Your task to perform on an android device: turn off location history Image 0: 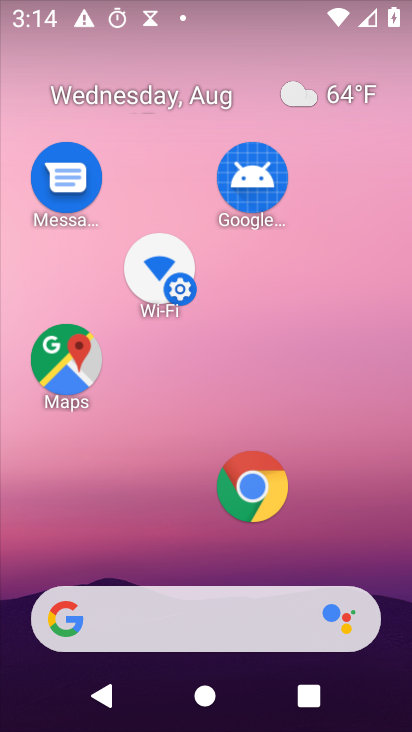
Step 0: press home button
Your task to perform on an android device: turn off location history Image 1: 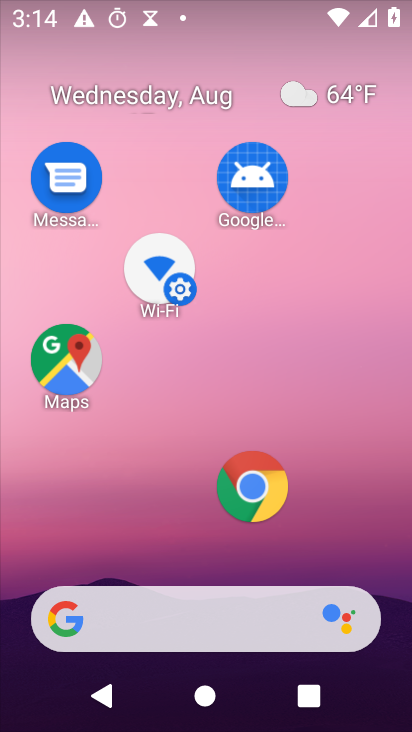
Step 1: drag from (321, 493) to (338, 44)
Your task to perform on an android device: turn off location history Image 2: 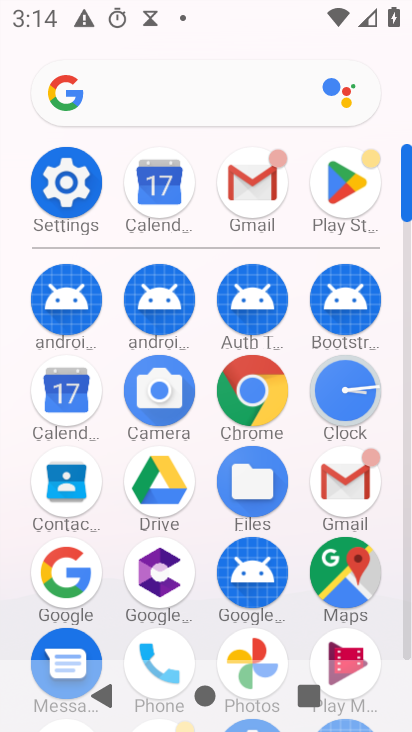
Step 2: click (71, 172)
Your task to perform on an android device: turn off location history Image 3: 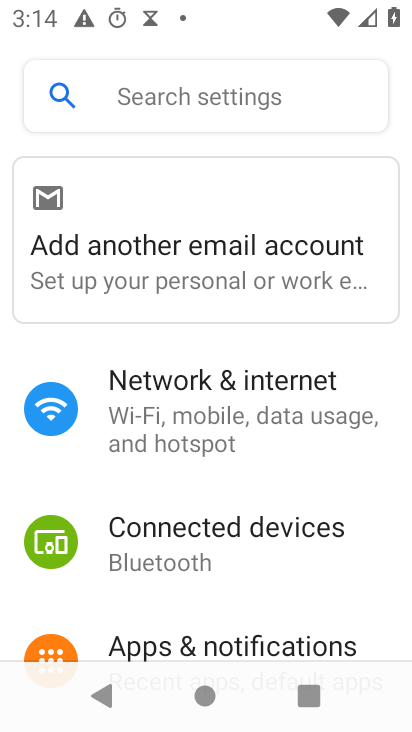
Step 3: drag from (347, 585) to (325, 75)
Your task to perform on an android device: turn off location history Image 4: 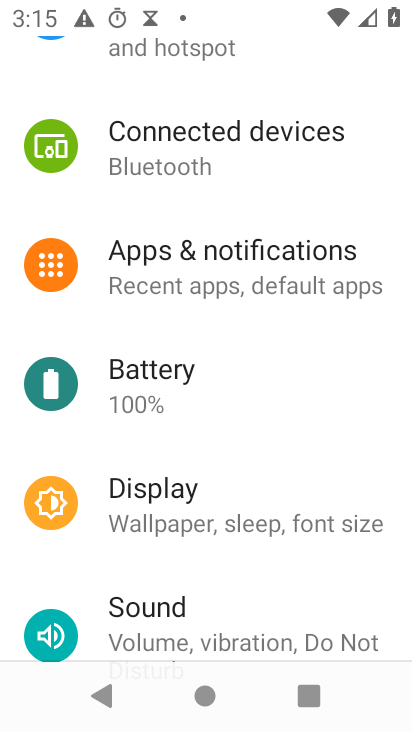
Step 4: drag from (389, 595) to (371, 216)
Your task to perform on an android device: turn off location history Image 5: 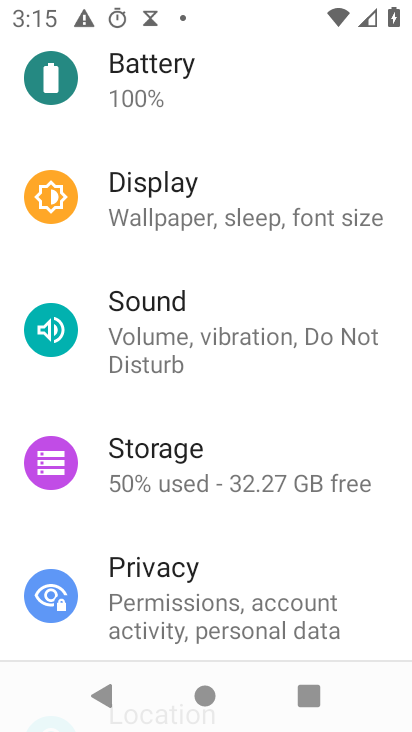
Step 5: drag from (403, 580) to (402, 178)
Your task to perform on an android device: turn off location history Image 6: 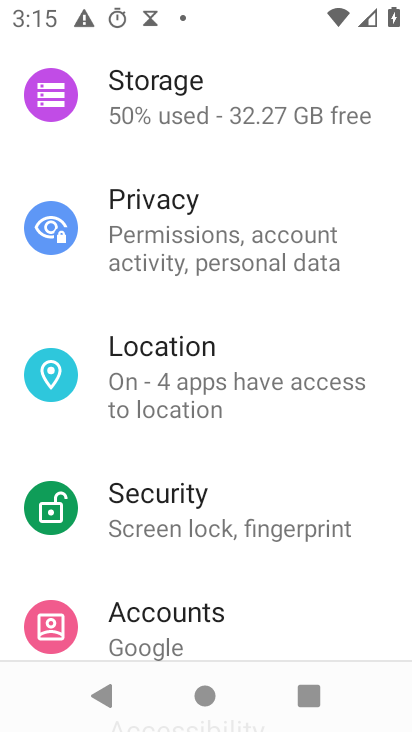
Step 6: click (204, 366)
Your task to perform on an android device: turn off location history Image 7: 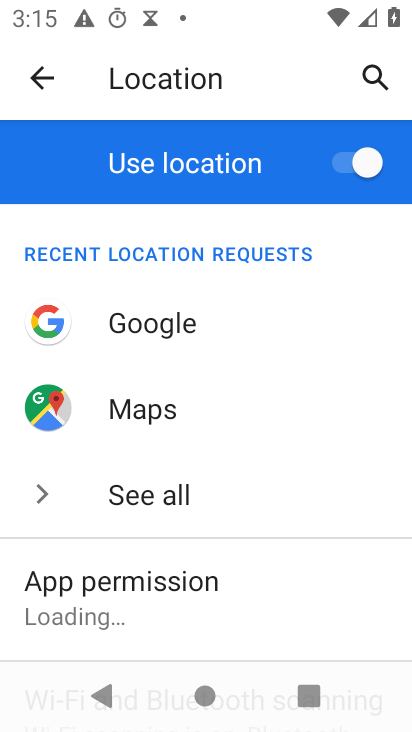
Step 7: drag from (312, 597) to (303, 345)
Your task to perform on an android device: turn off location history Image 8: 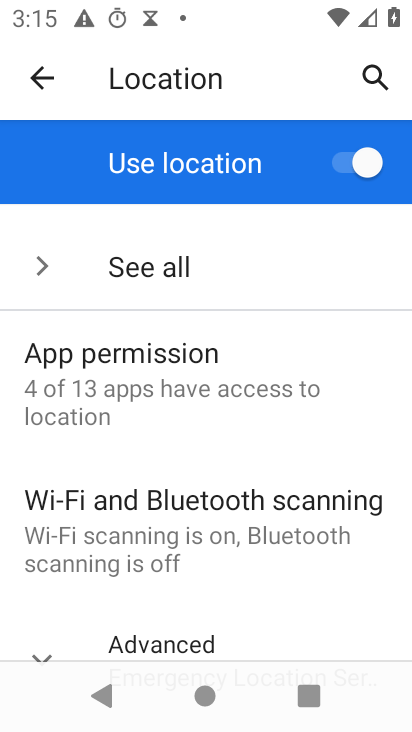
Step 8: click (158, 647)
Your task to perform on an android device: turn off location history Image 9: 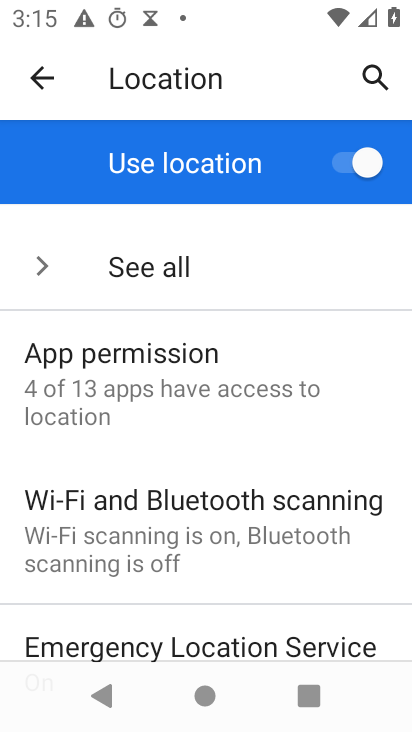
Step 9: drag from (392, 618) to (361, 197)
Your task to perform on an android device: turn off location history Image 10: 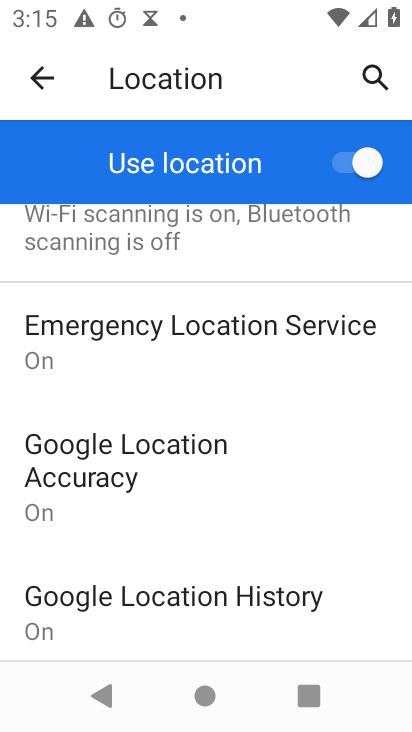
Step 10: click (208, 617)
Your task to perform on an android device: turn off location history Image 11: 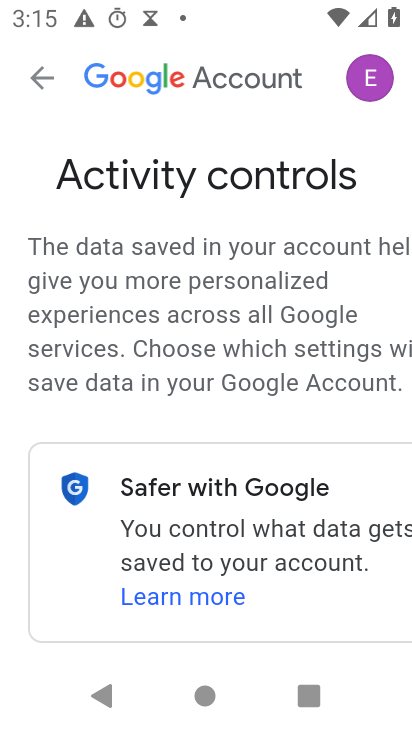
Step 11: drag from (360, 626) to (364, 200)
Your task to perform on an android device: turn off location history Image 12: 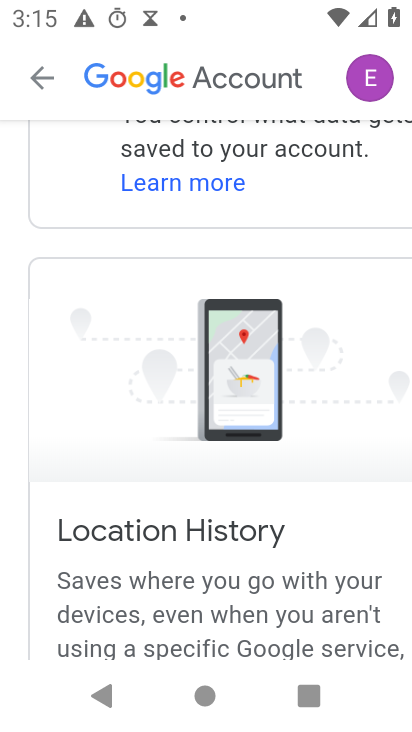
Step 12: drag from (402, 549) to (398, 194)
Your task to perform on an android device: turn off location history Image 13: 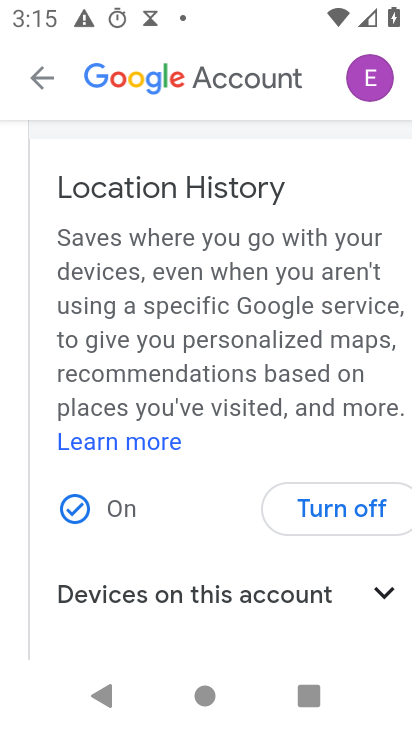
Step 13: click (349, 511)
Your task to perform on an android device: turn off location history Image 14: 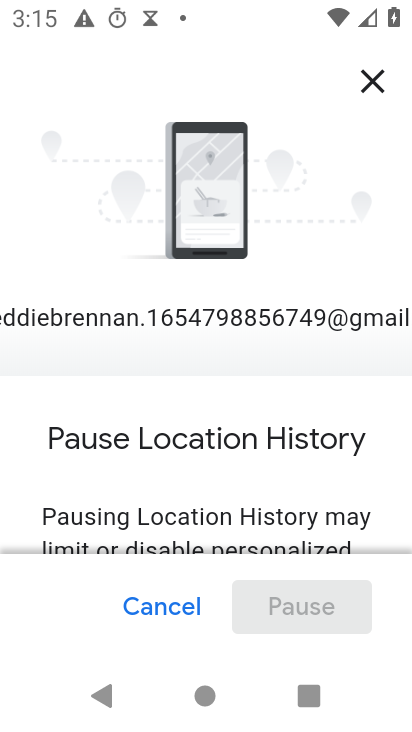
Step 14: drag from (376, 516) to (408, 173)
Your task to perform on an android device: turn off location history Image 15: 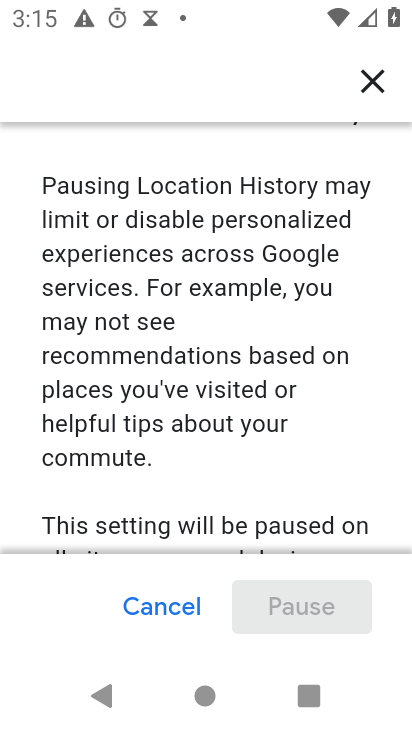
Step 15: drag from (389, 508) to (395, 25)
Your task to perform on an android device: turn off location history Image 16: 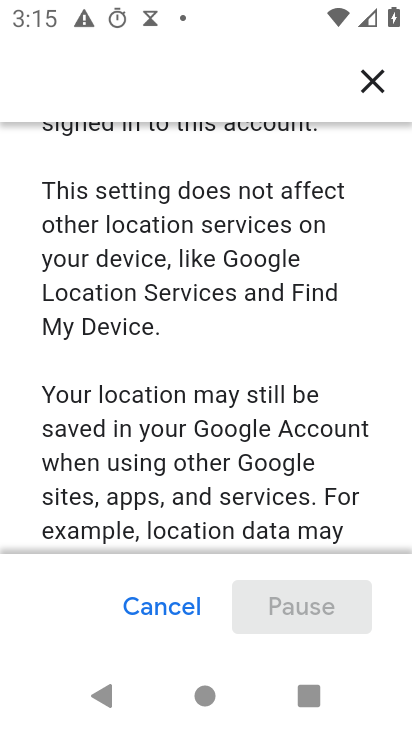
Step 16: drag from (386, 152) to (388, 80)
Your task to perform on an android device: turn off location history Image 17: 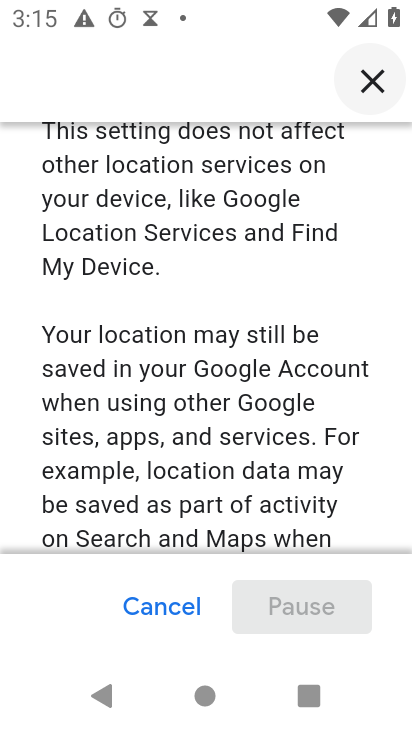
Step 17: drag from (376, 374) to (410, 82)
Your task to perform on an android device: turn off location history Image 18: 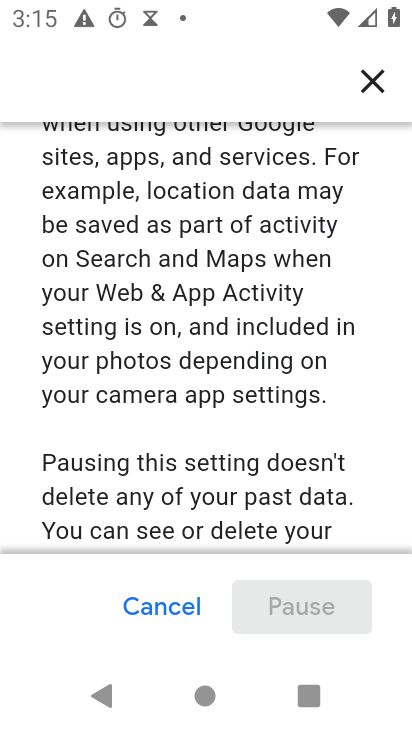
Step 18: drag from (362, 473) to (407, 643)
Your task to perform on an android device: turn off location history Image 19: 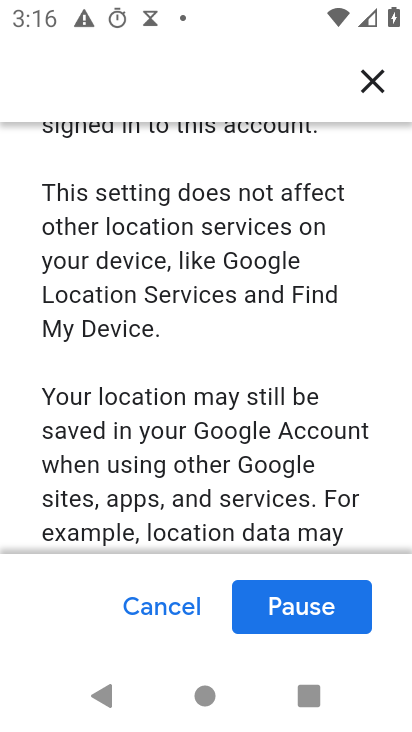
Step 19: click (310, 613)
Your task to perform on an android device: turn off location history Image 20: 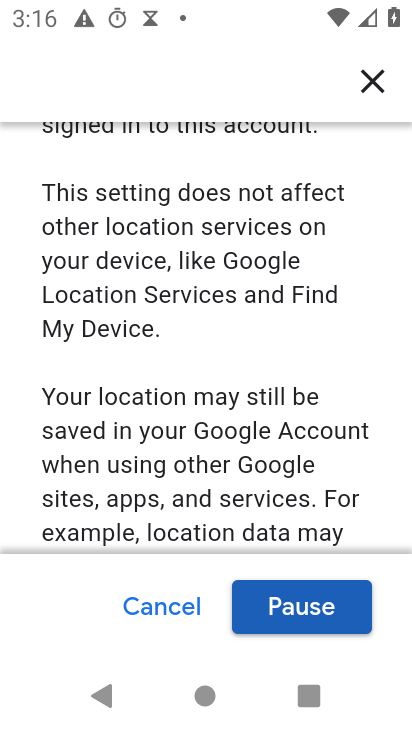
Step 20: click (313, 615)
Your task to perform on an android device: turn off location history Image 21: 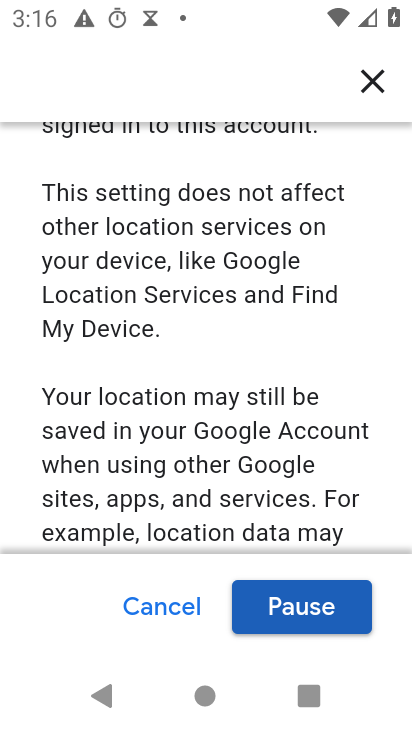
Step 21: click (313, 615)
Your task to perform on an android device: turn off location history Image 22: 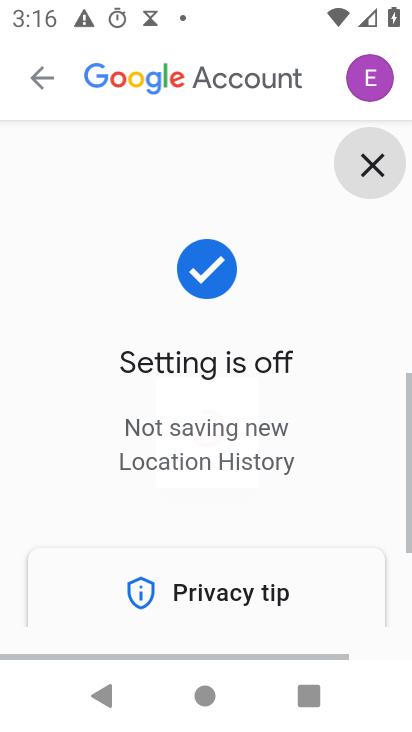
Step 22: drag from (364, 513) to (399, 363)
Your task to perform on an android device: turn off location history Image 23: 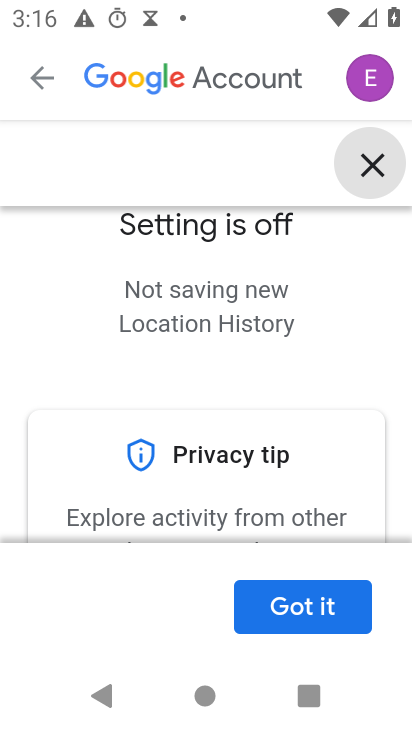
Step 23: click (316, 621)
Your task to perform on an android device: turn off location history Image 24: 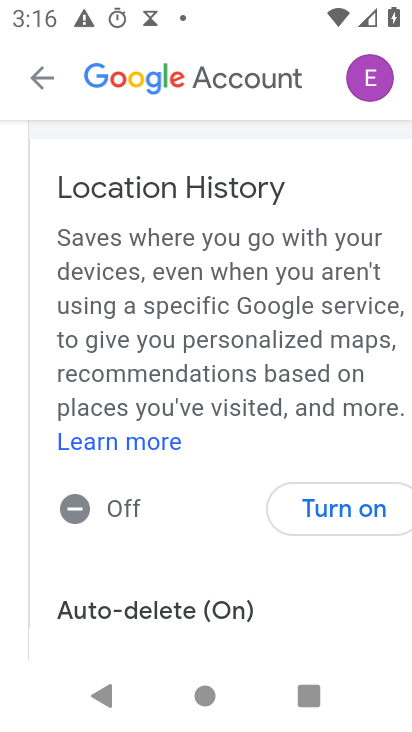
Step 24: task complete